Your task to perform on an android device: Show me popular videos on Youtube Image 0: 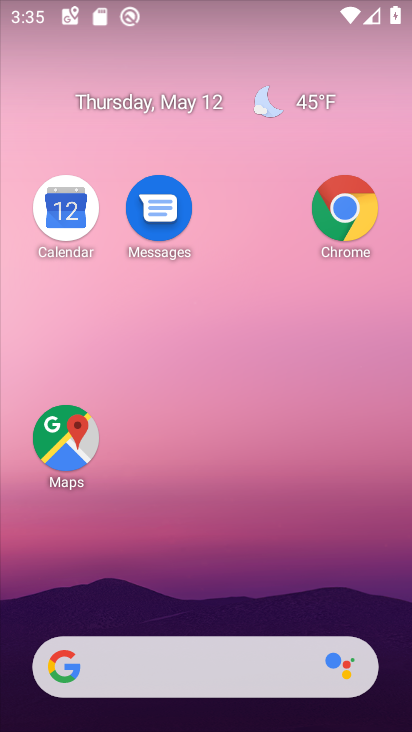
Step 0: drag from (111, 584) to (180, 183)
Your task to perform on an android device: Show me popular videos on Youtube Image 1: 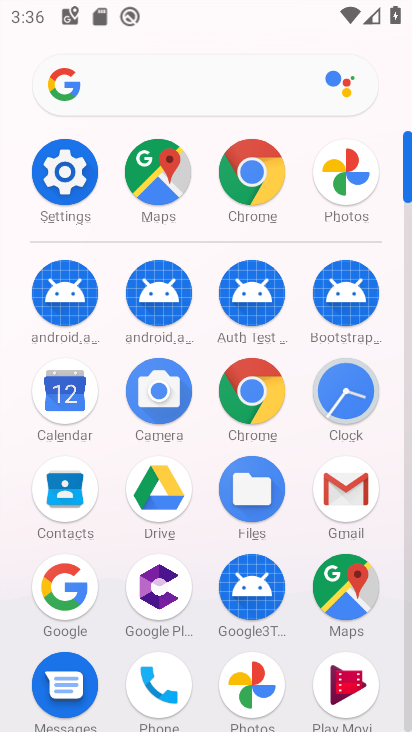
Step 1: drag from (210, 613) to (209, 241)
Your task to perform on an android device: Show me popular videos on Youtube Image 2: 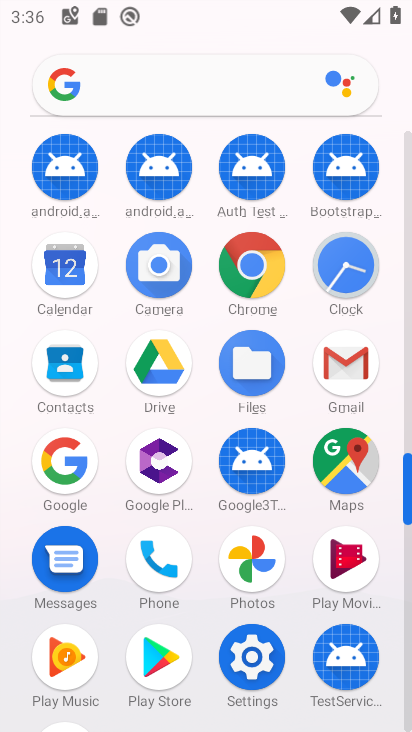
Step 2: drag from (223, 643) to (227, 279)
Your task to perform on an android device: Show me popular videos on Youtube Image 3: 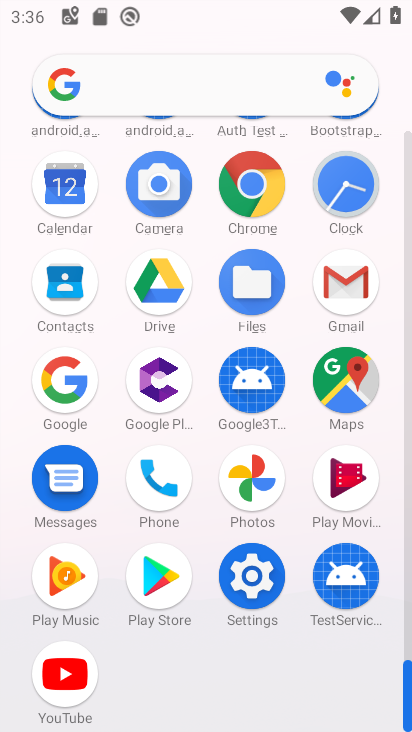
Step 3: click (92, 668)
Your task to perform on an android device: Show me popular videos on Youtube Image 4: 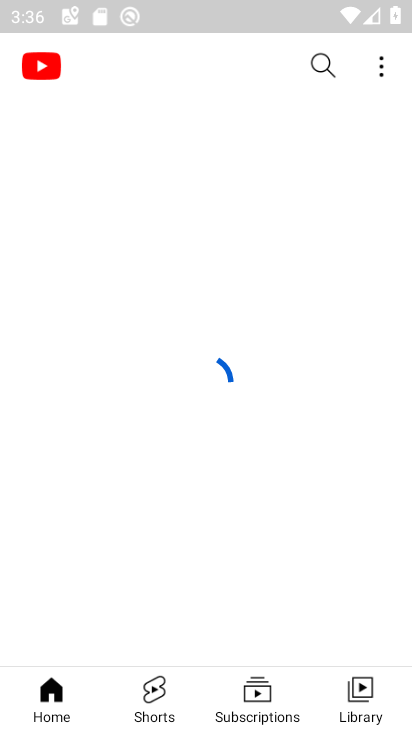
Step 4: task complete